Your task to perform on an android device: turn on improve location accuracy Image 0: 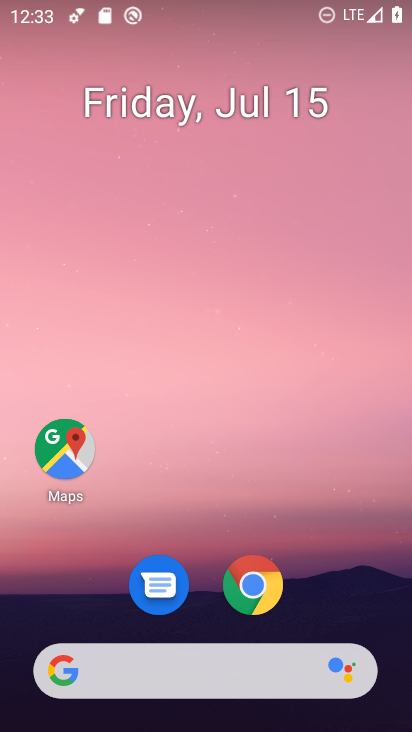
Step 0: drag from (332, 542) to (354, 121)
Your task to perform on an android device: turn on improve location accuracy Image 1: 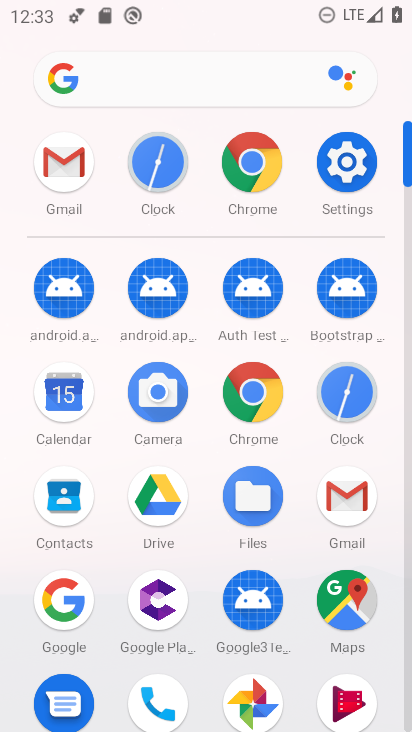
Step 1: click (346, 153)
Your task to perform on an android device: turn on improve location accuracy Image 2: 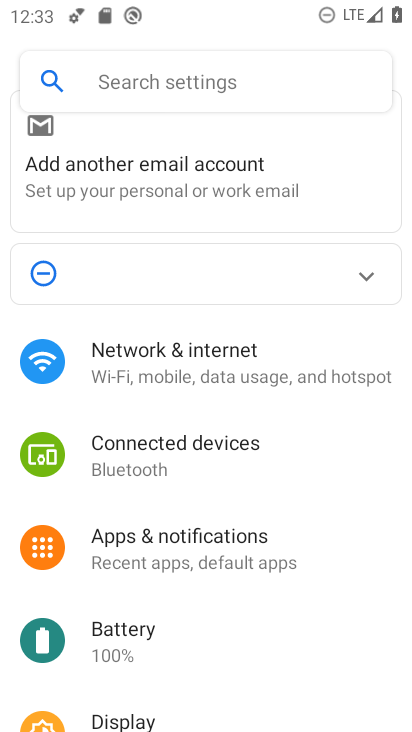
Step 2: drag from (257, 496) to (298, 29)
Your task to perform on an android device: turn on improve location accuracy Image 3: 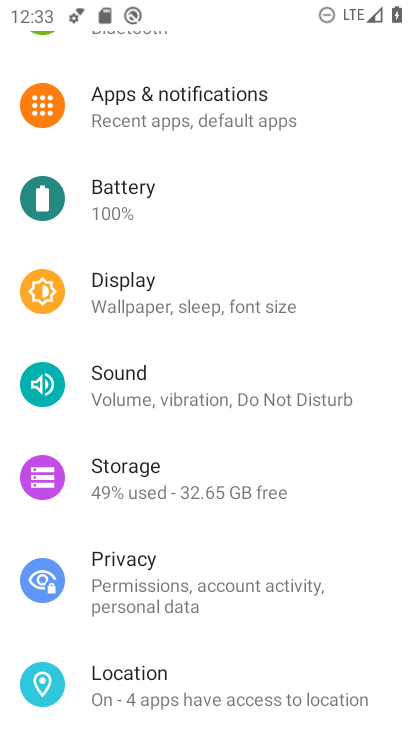
Step 3: drag from (199, 625) to (233, 233)
Your task to perform on an android device: turn on improve location accuracy Image 4: 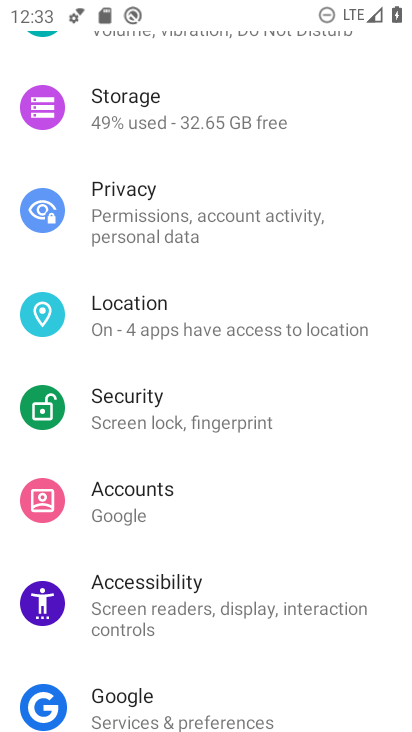
Step 4: click (225, 327)
Your task to perform on an android device: turn on improve location accuracy Image 5: 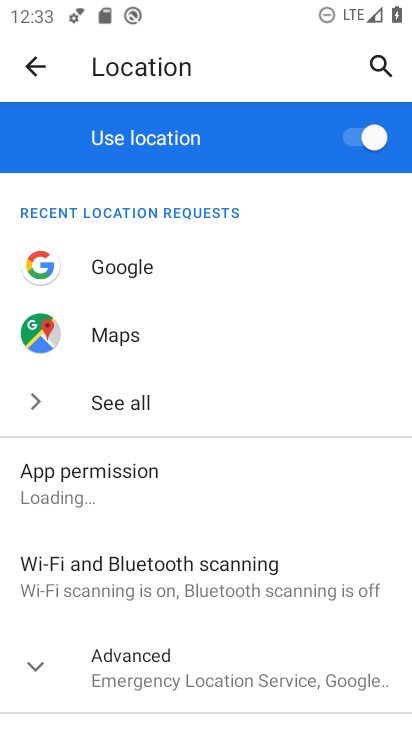
Step 5: click (29, 671)
Your task to perform on an android device: turn on improve location accuracy Image 6: 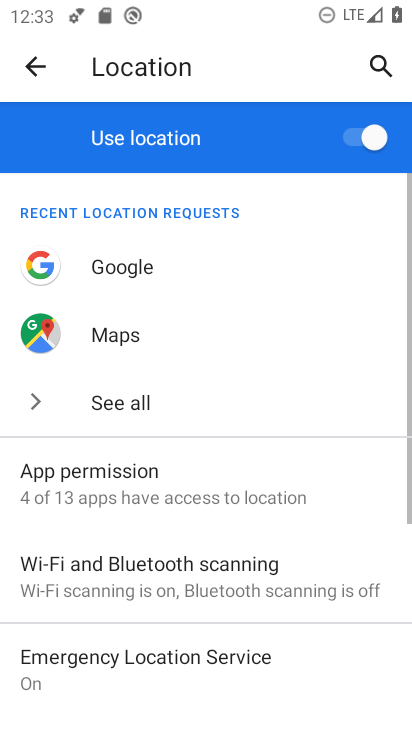
Step 6: drag from (218, 504) to (271, 92)
Your task to perform on an android device: turn on improve location accuracy Image 7: 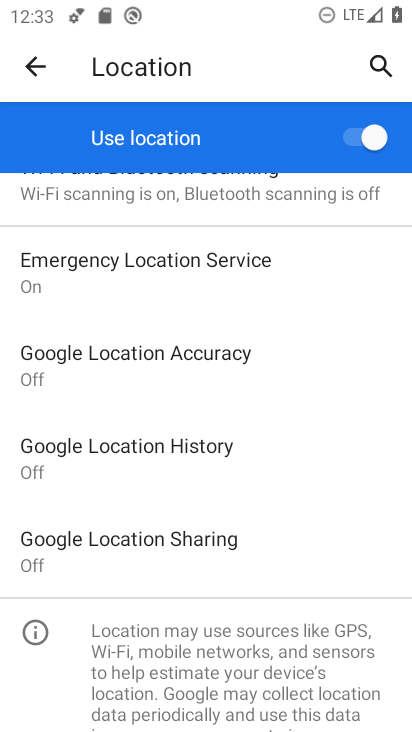
Step 7: click (231, 358)
Your task to perform on an android device: turn on improve location accuracy Image 8: 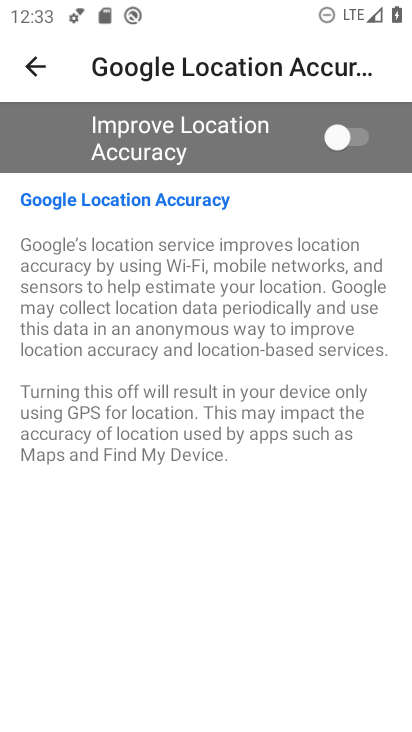
Step 8: click (366, 139)
Your task to perform on an android device: turn on improve location accuracy Image 9: 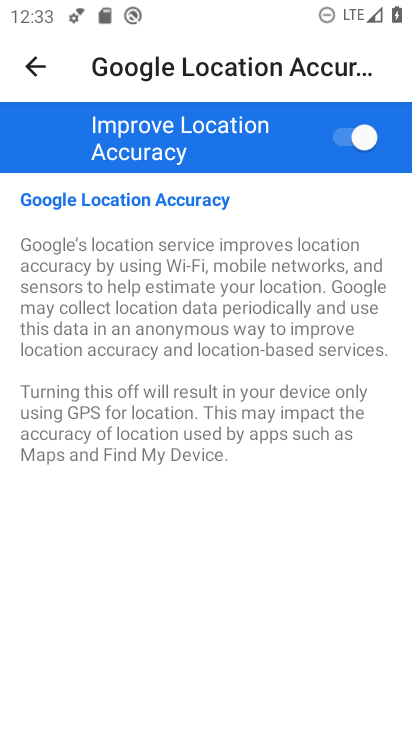
Step 9: task complete